Your task to perform on an android device: Open the calendar and show me this week's events? Image 0: 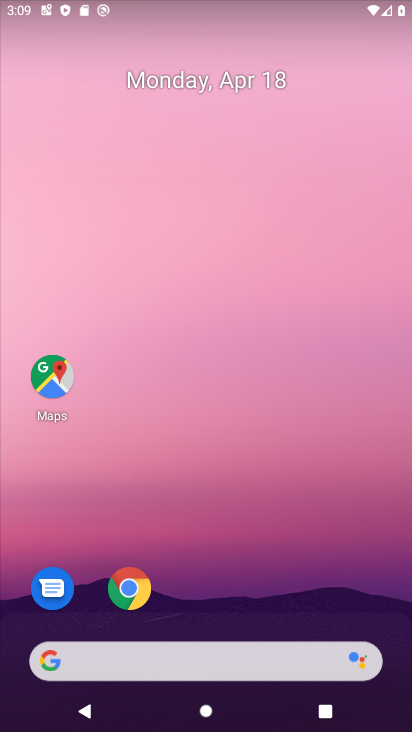
Step 0: click (257, 78)
Your task to perform on an android device: Open the calendar and show me this week's events? Image 1: 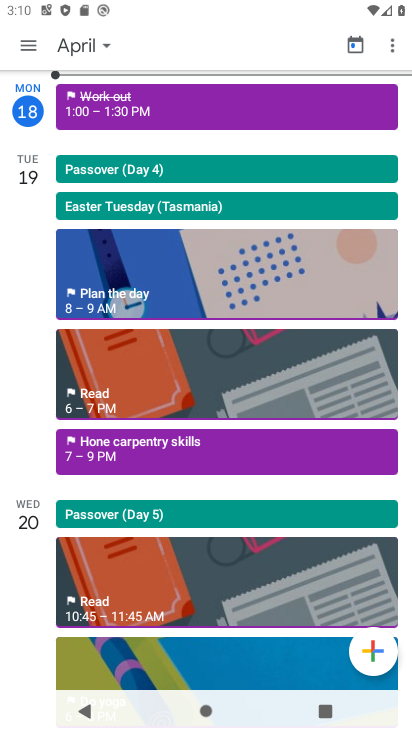
Step 1: click (85, 54)
Your task to perform on an android device: Open the calendar and show me this week's events? Image 2: 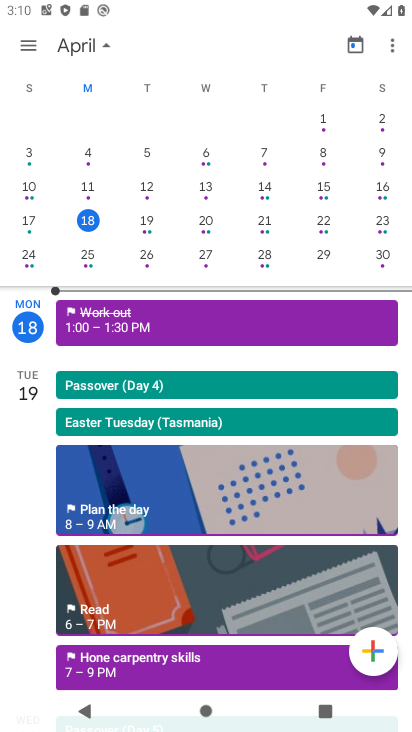
Step 2: click (90, 260)
Your task to perform on an android device: Open the calendar and show me this week's events? Image 3: 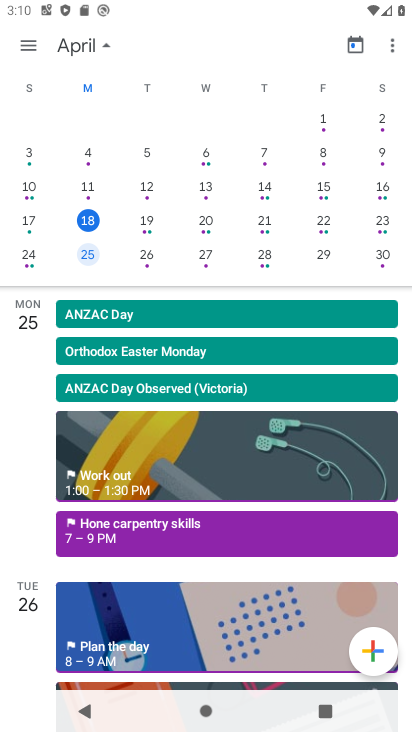
Step 3: click (158, 498)
Your task to perform on an android device: Open the calendar and show me this week's events? Image 4: 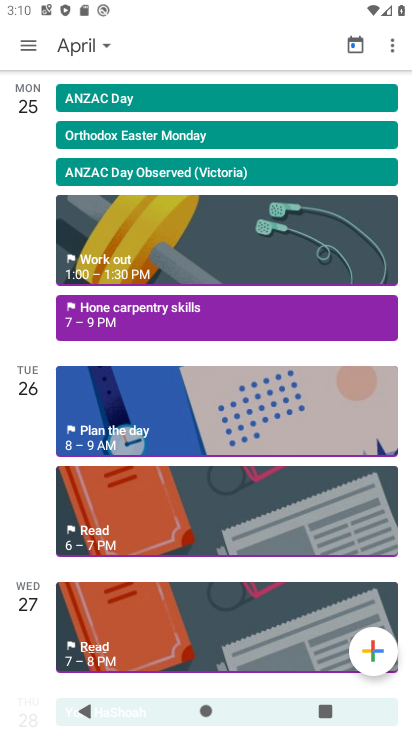
Step 4: click (70, 320)
Your task to perform on an android device: Open the calendar and show me this week's events? Image 5: 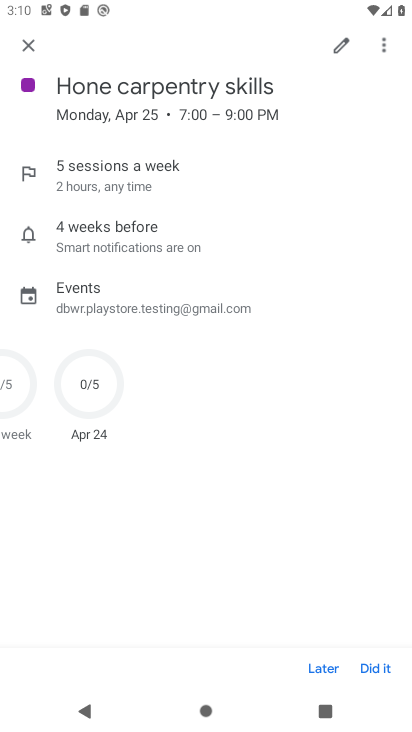
Step 5: task complete